Your task to perform on an android device: check android version Image 0: 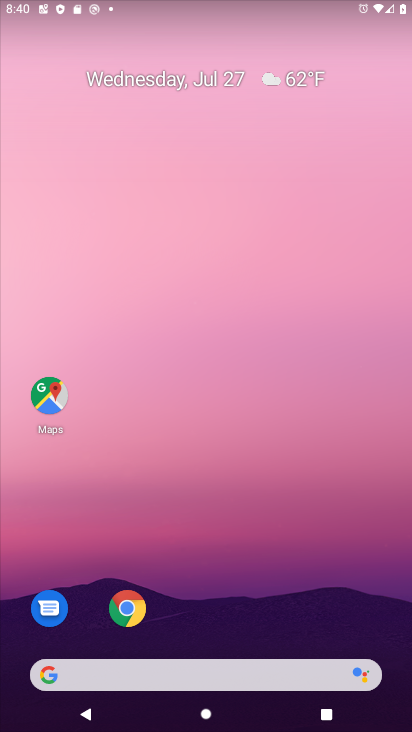
Step 0: drag from (274, 425) to (268, 198)
Your task to perform on an android device: check android version Image 1: 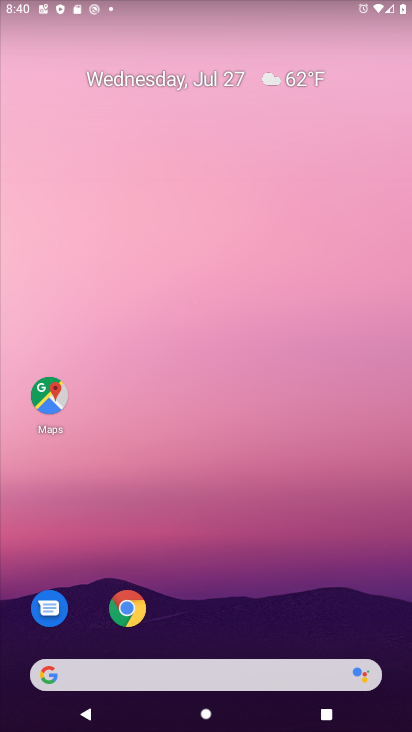
Step 1: drag from (235, 502) to (266, 195)
Your task to perform on an android device: check android version Image 2: 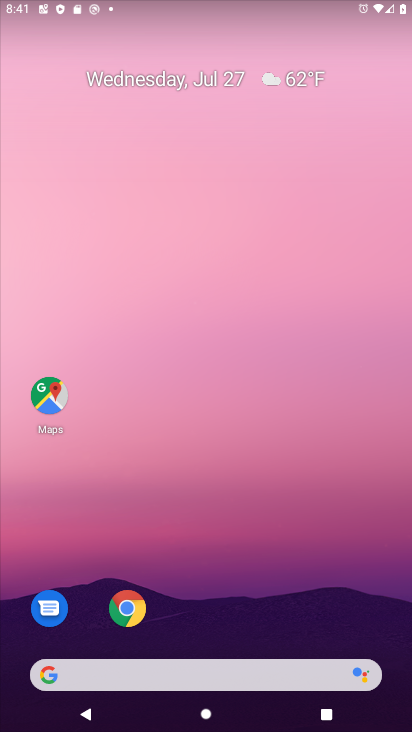
Step 2: drag from (254, 605) to (353, 277)
Your task to perform on an android device: check android version Image 3: 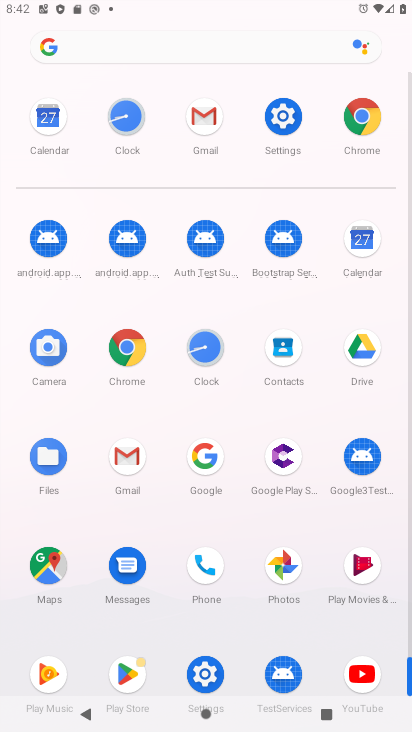
Step 3: click (205, 671)
Your task to perform on an android device: check android version Image 4: 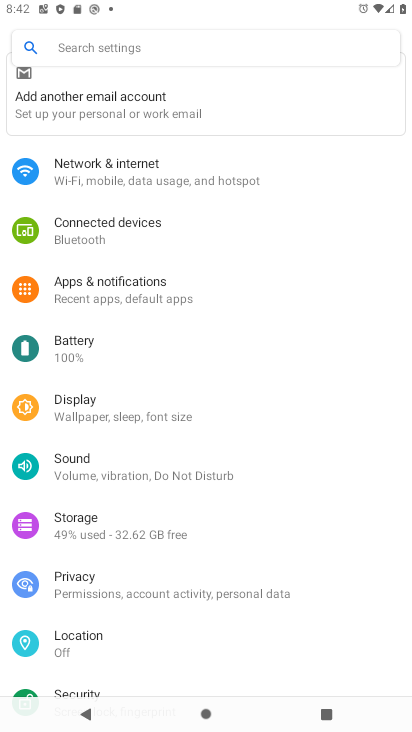
Step 4: drag from (251, 649) to (257, 212)
Your task to perform on an android device: check android version Image 5: 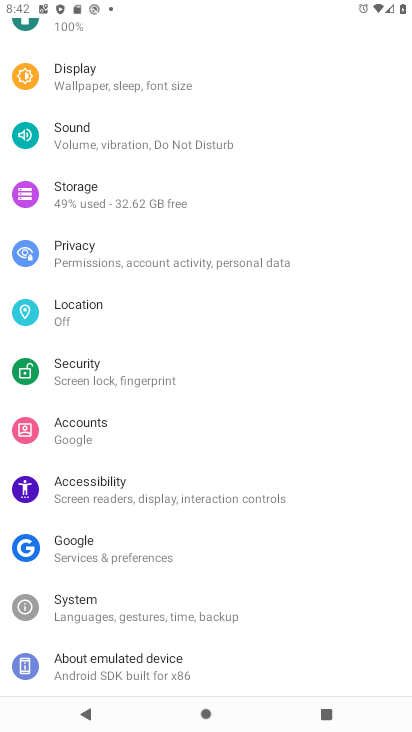
Step 5: click (119, 678)
Your task to perform on an android device: check android version Image 6: 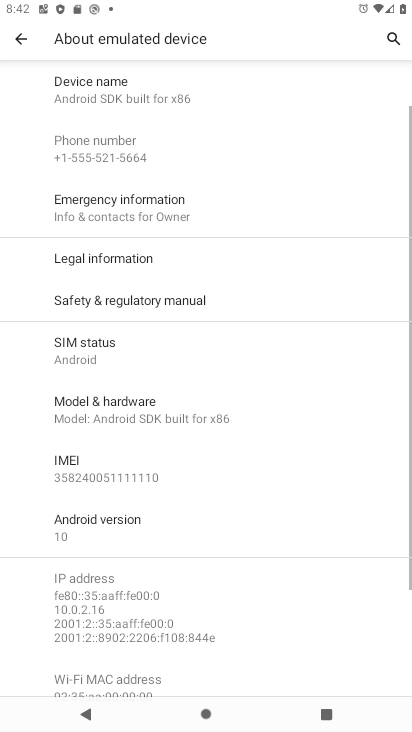
Step 6: task complete